Your task to perform on an android device: change alarm snooze length Image 0: 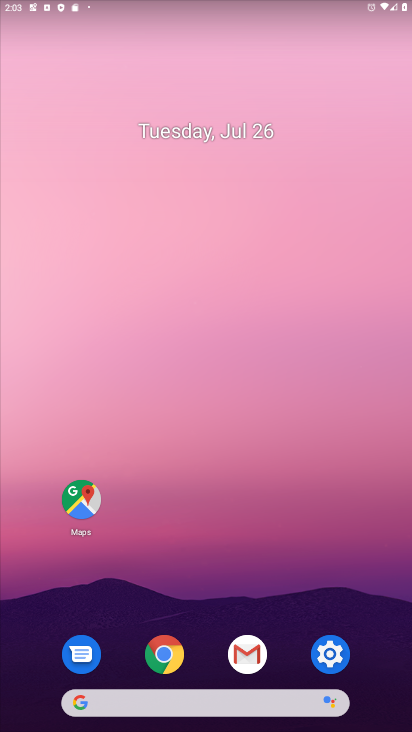
Step 0: drag from (249, 724) to (339, 103)
Your task to perform on an android device: change alarm snooze length Image 1: 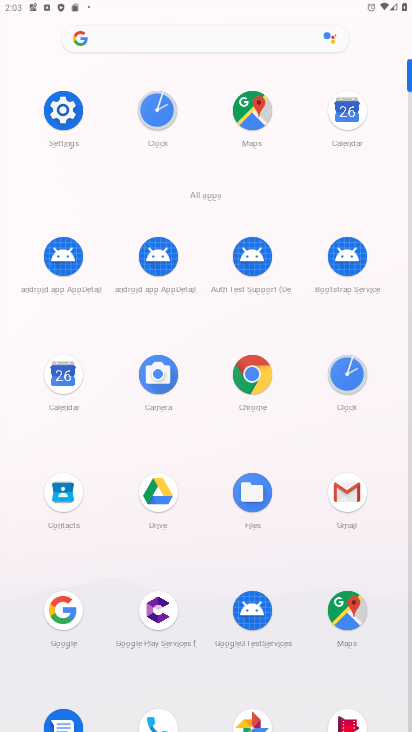
Step 1: click (344, 362)
Your task to perform on an android device: change alarm snooze length Image 2: 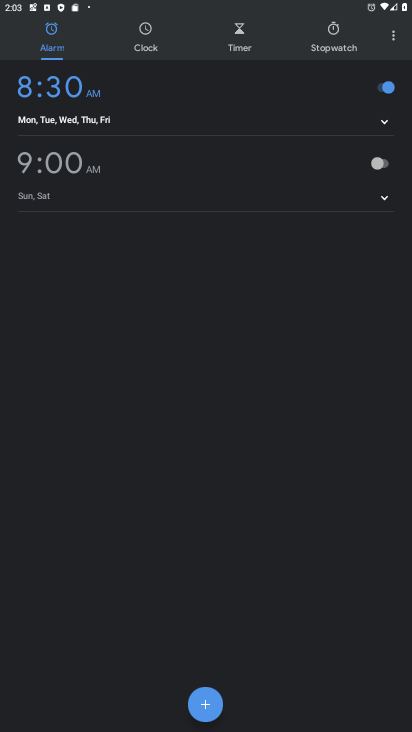
Step 2: click (391, 40)
Your task to perform on an android device: change alarm snooze length Image 3: 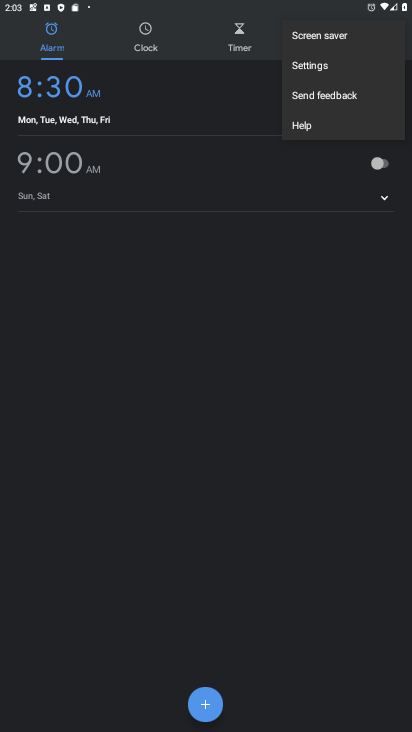
Step 3: click (332, 71)
Your task to perform on an android device: change alarm snooze length Image 4: 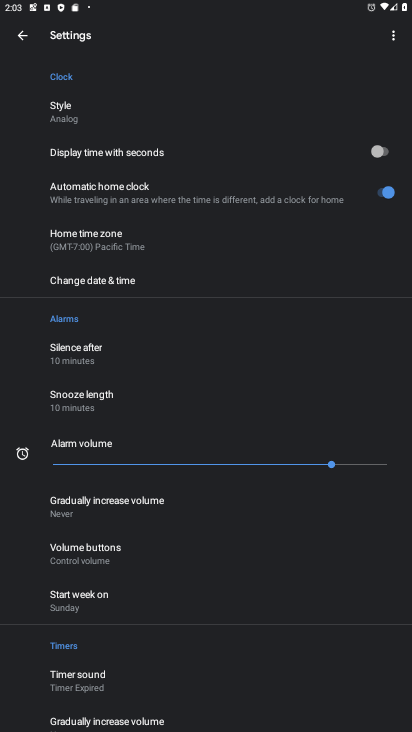
Step 4: click (124, 409)
Your task to perform on an android device: change alarm snooze length Image 5: 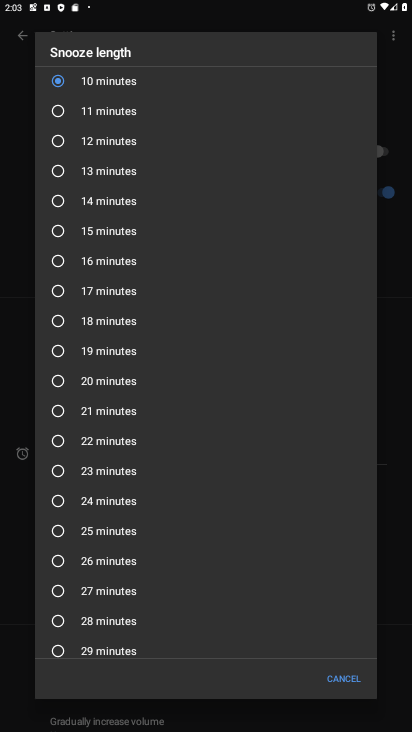
Step 5: click (51, 565)
Your task to perform on an android device: change alarm snooze length Image 6: 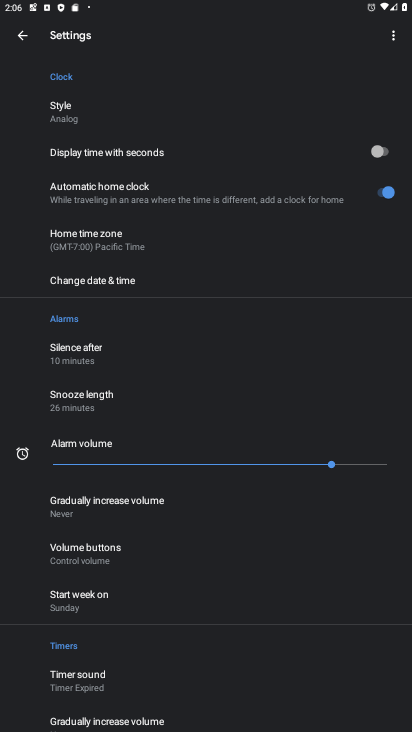
Step 6: task complete